Your task to perform on an android device: open app "NewsBreak: Local News & Alerts" Image 0: 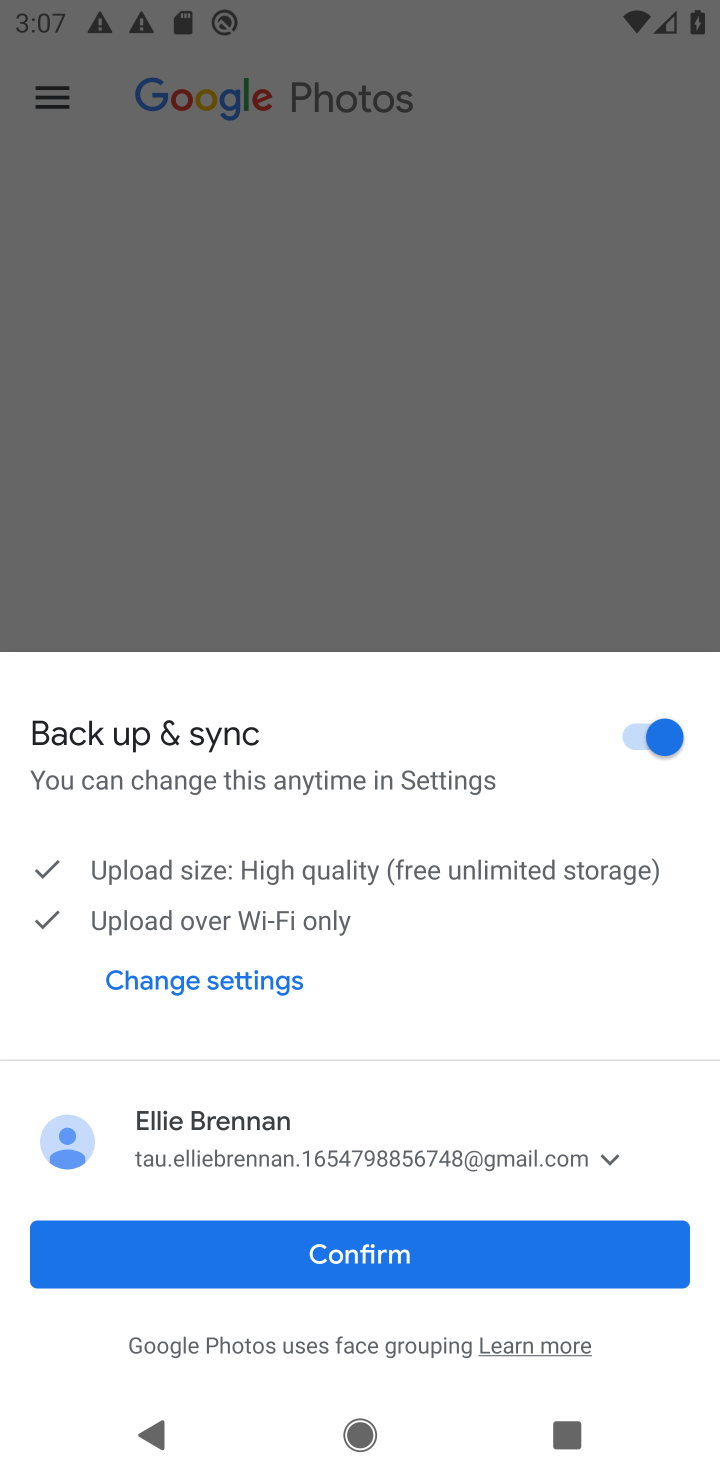
Step 0: press home button
Your task to perform on an android device: open app "NewsBreak: Local News & Alerts" Image 1: 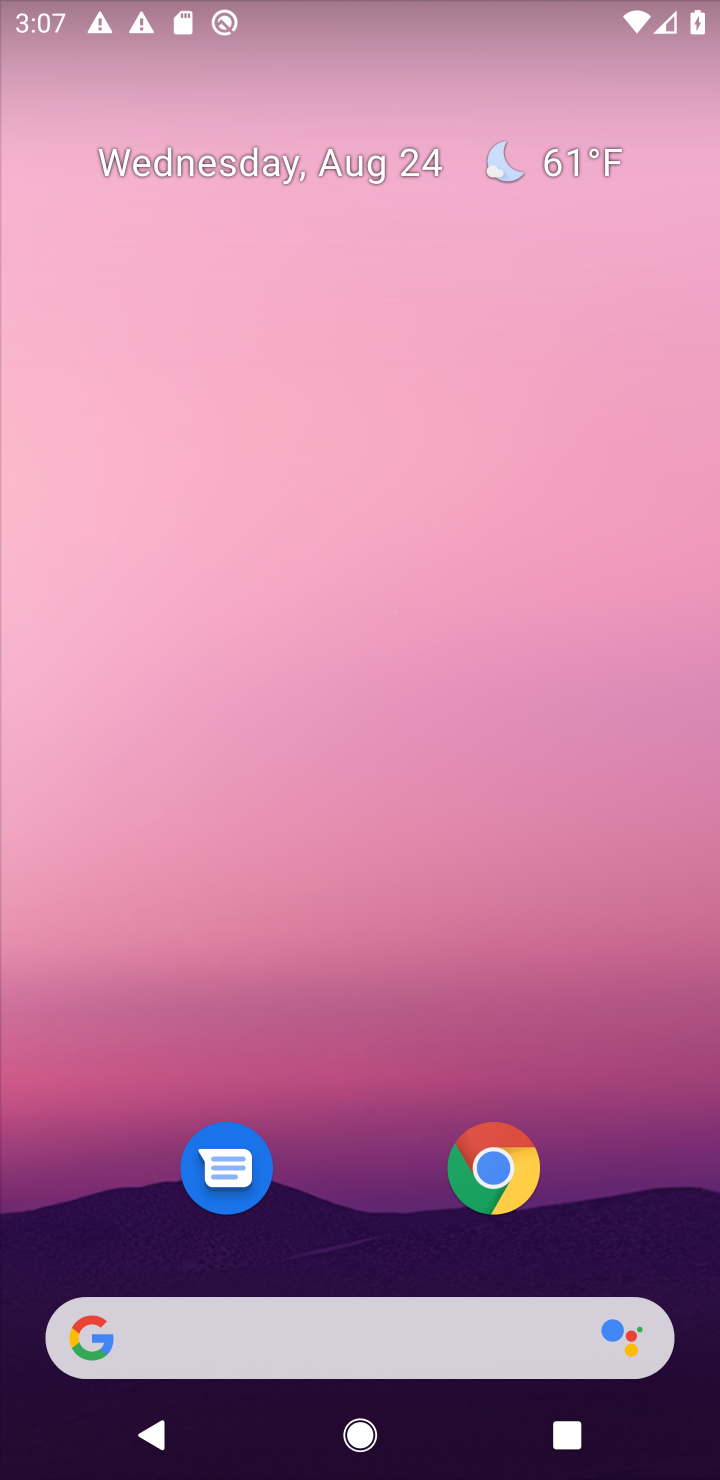
Step 1: drag from (591, 520) to (594, 104)
Your task to perform on an android device: open app "NewsBreak: Local News & Alerts" Image 2: 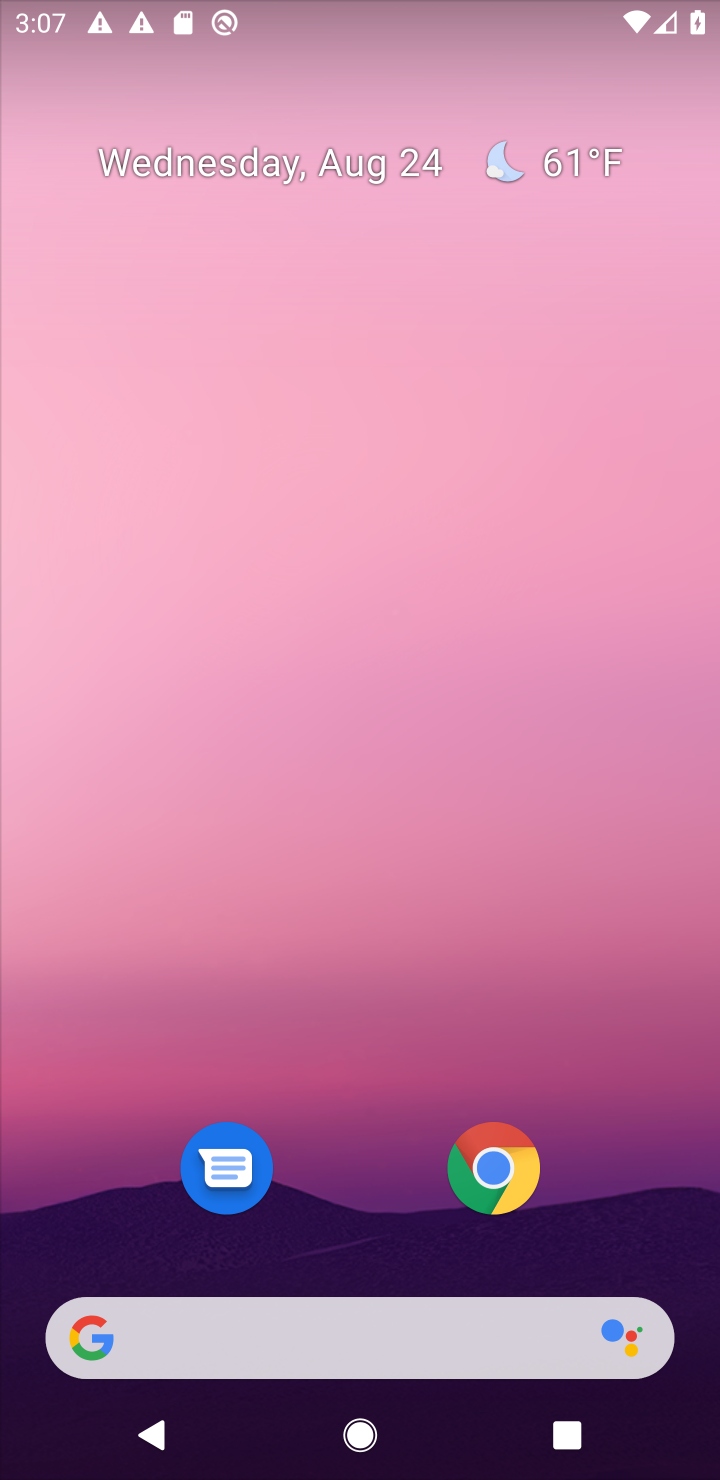
Step 2: drag from (622, 1229) to (587, 229)
Your task to perform on an android device: open app "NewsBreak: Local News & Alerts" Image 3: 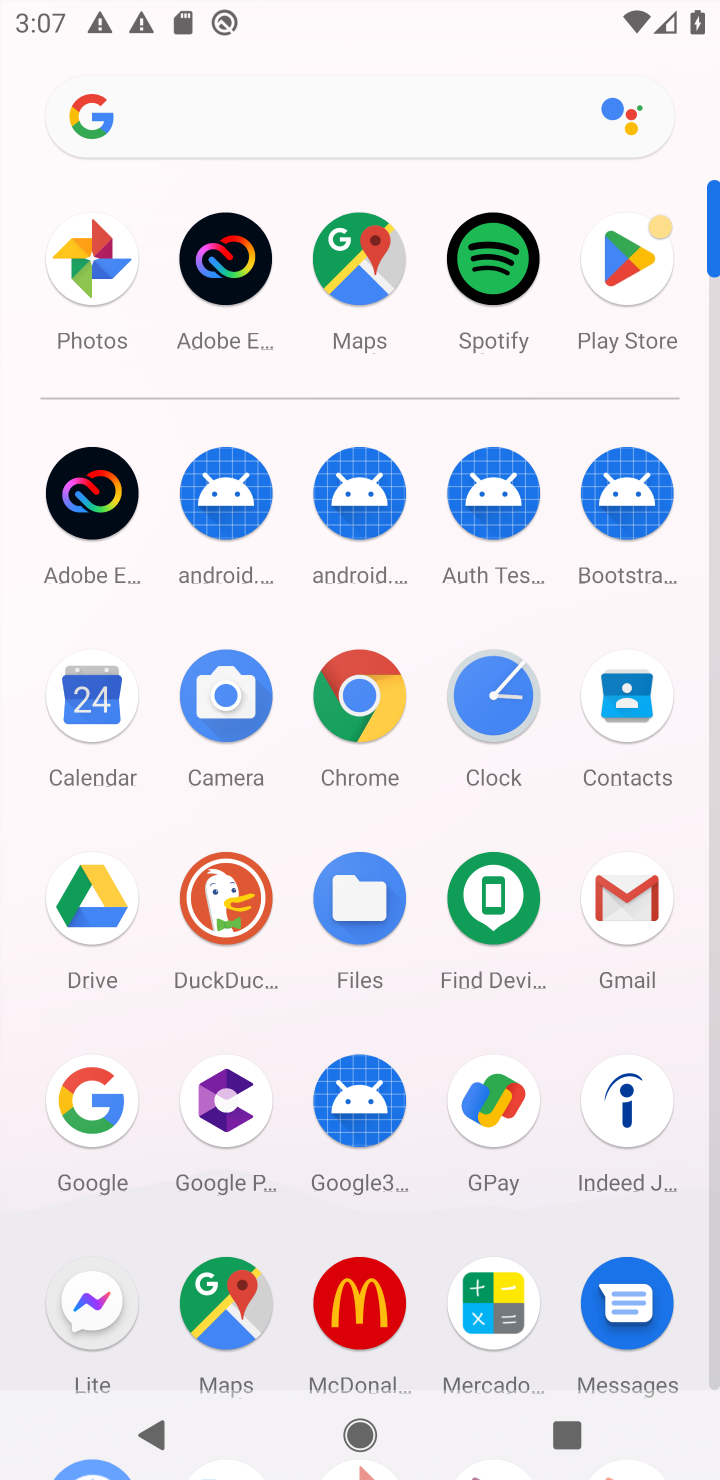
Step 3: click (716, 1308)
Your task to perform on an android device: open app "NewsBreak: Local News & Alerts" Image 4: 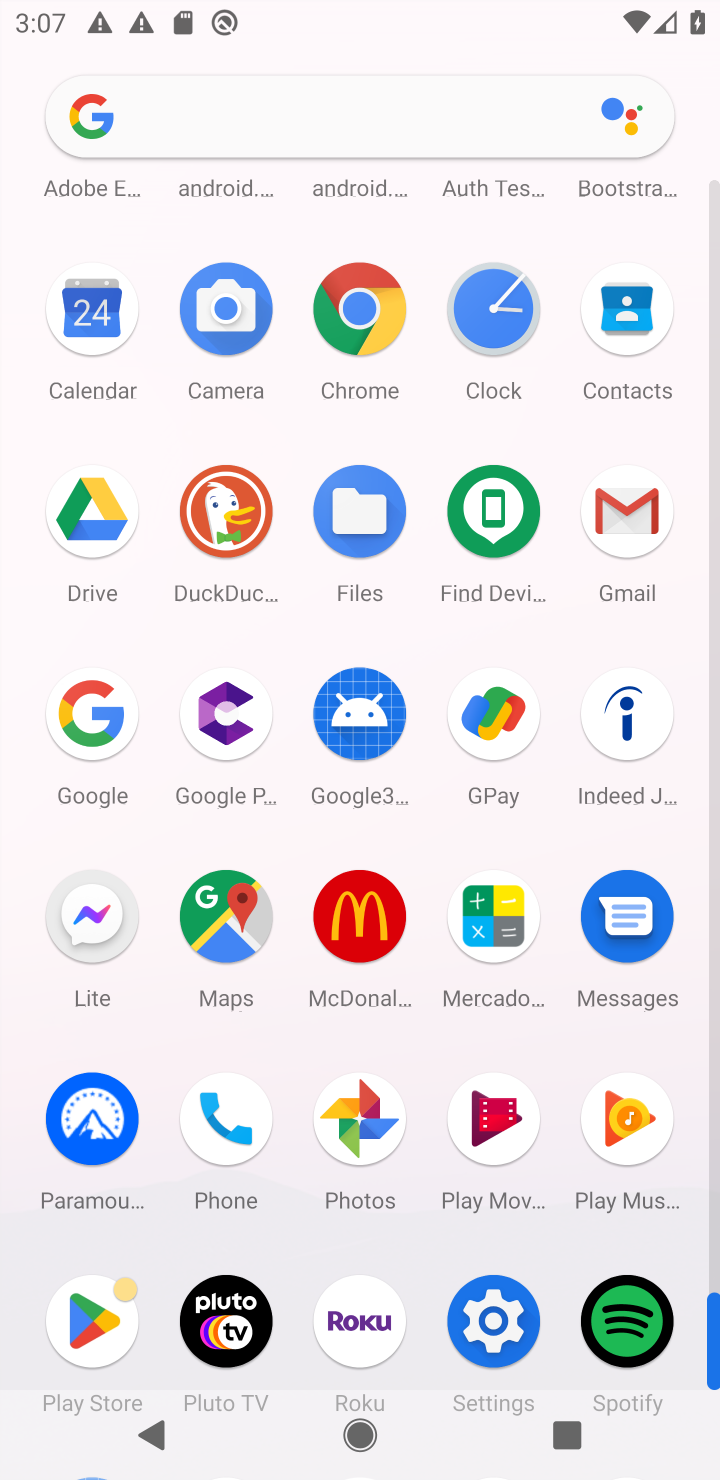
Step 4: click (87, 1319)
Your task to perform on an android device: open app "NewsBreak: Local News & Alerts" Image 5: 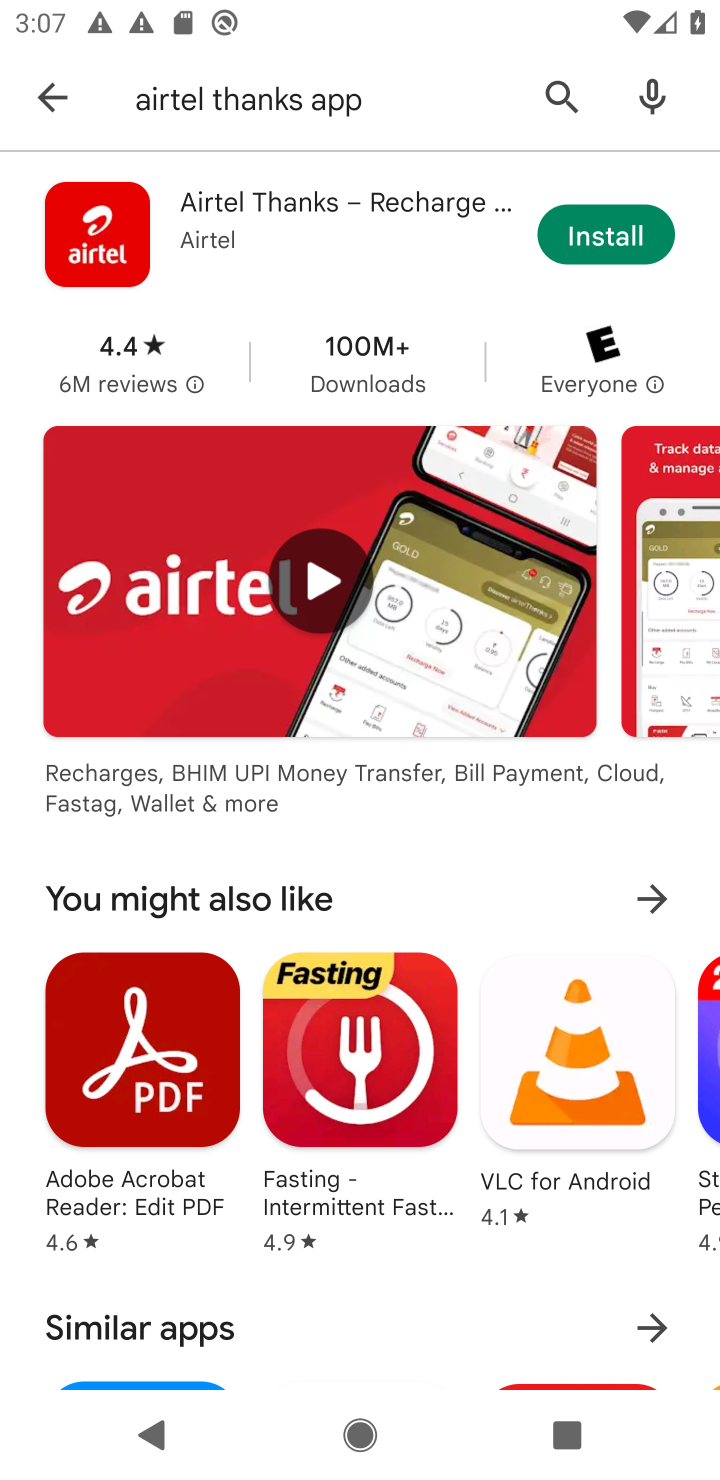
Step 5: click (558, 98)
Your task to perform on an android device: open app "NewsBreak: Local News & Alerts" Image 6: 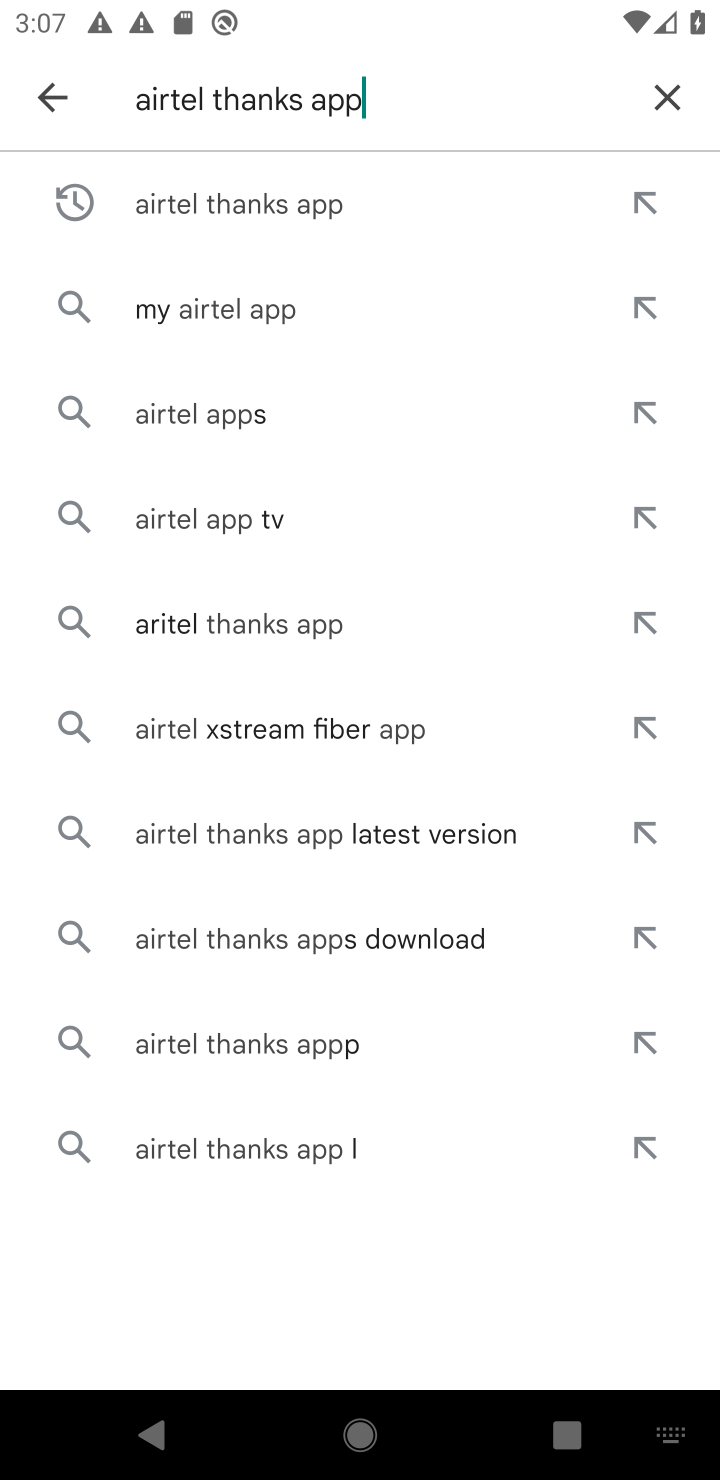
Step 6: click (666, 91)
Your task to perform on an android device: open app "NewsBreak: Local News & Alerts" Image 7: 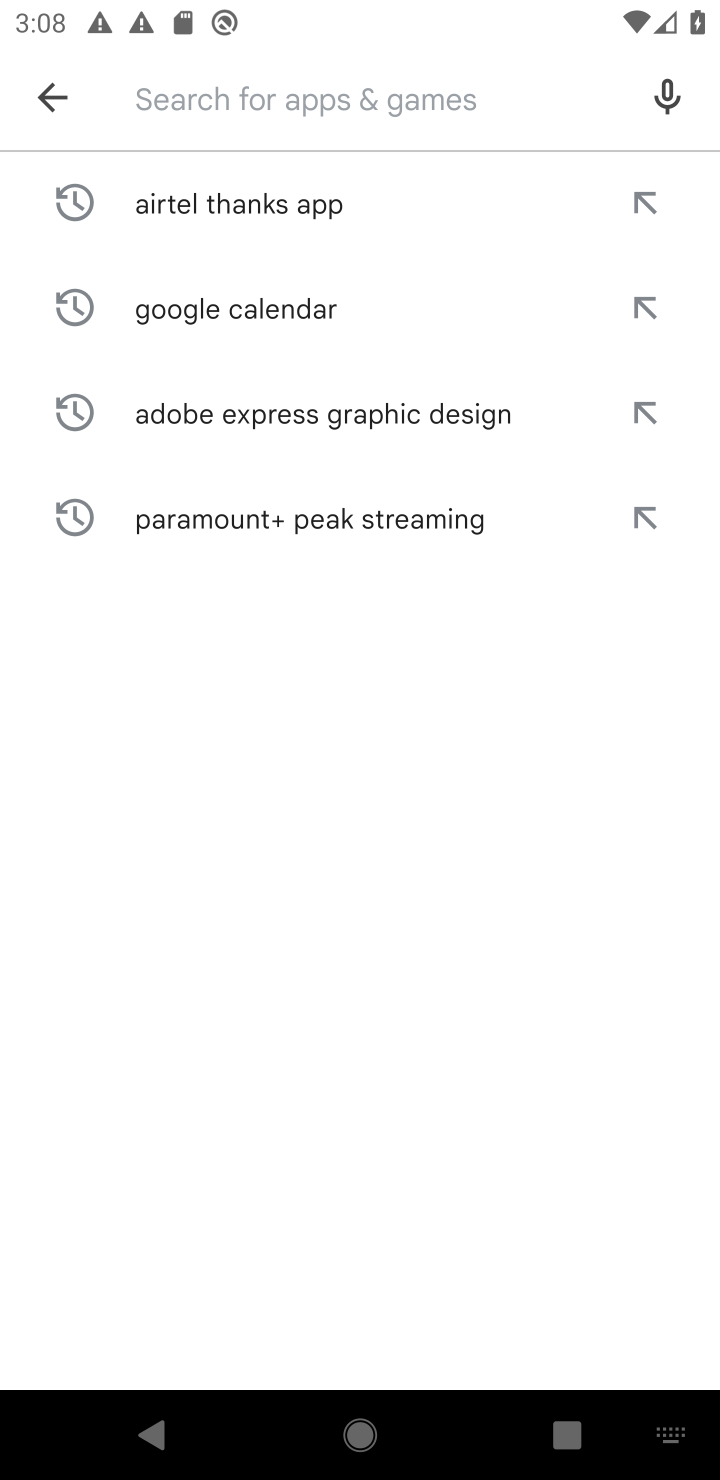
Step 7: type "NewsBreak: Local News & Alerts"
Your task to perform on an android device: open app "NewsBreak: Local News & Alerts" Image 8: 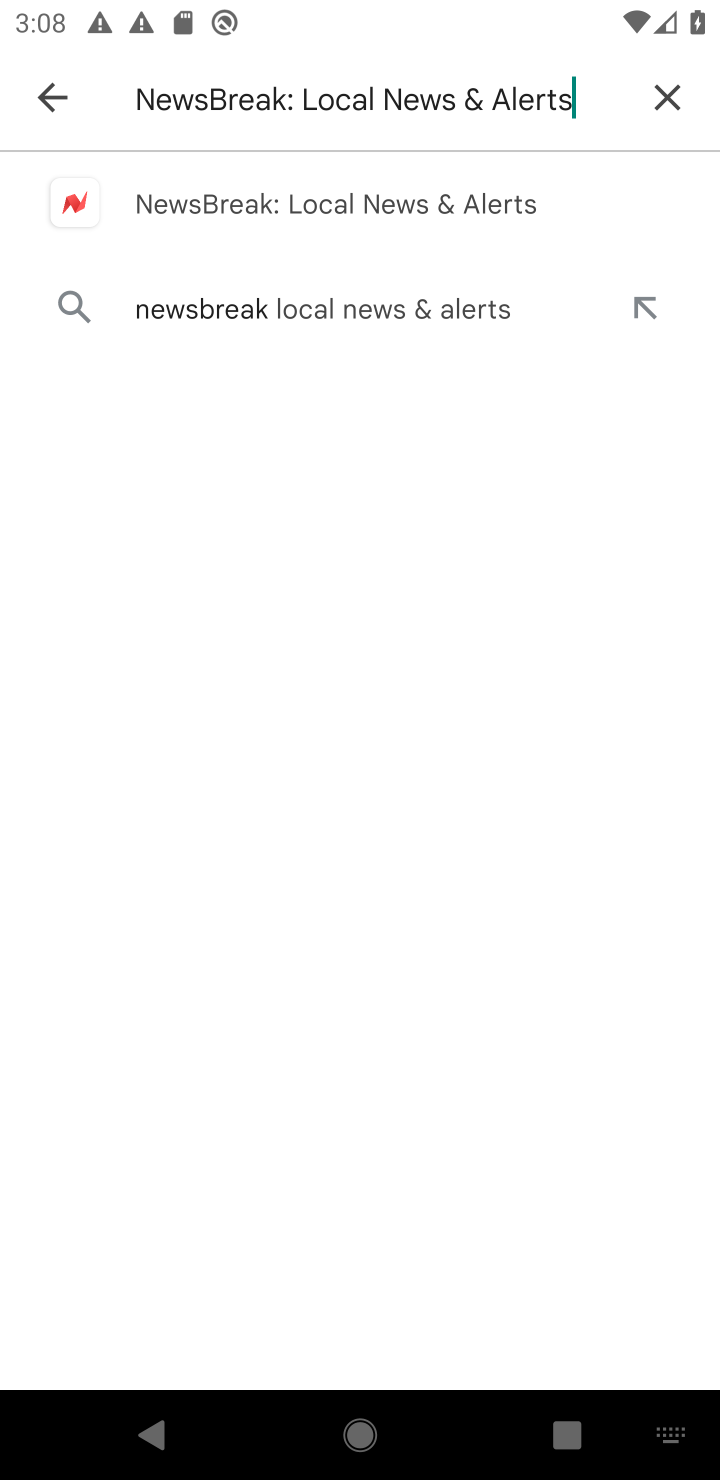
Step 8: click (263, 205)
Your task to perform on an android device: open app "NewsBreak: Local News & Alerts" Image 9: 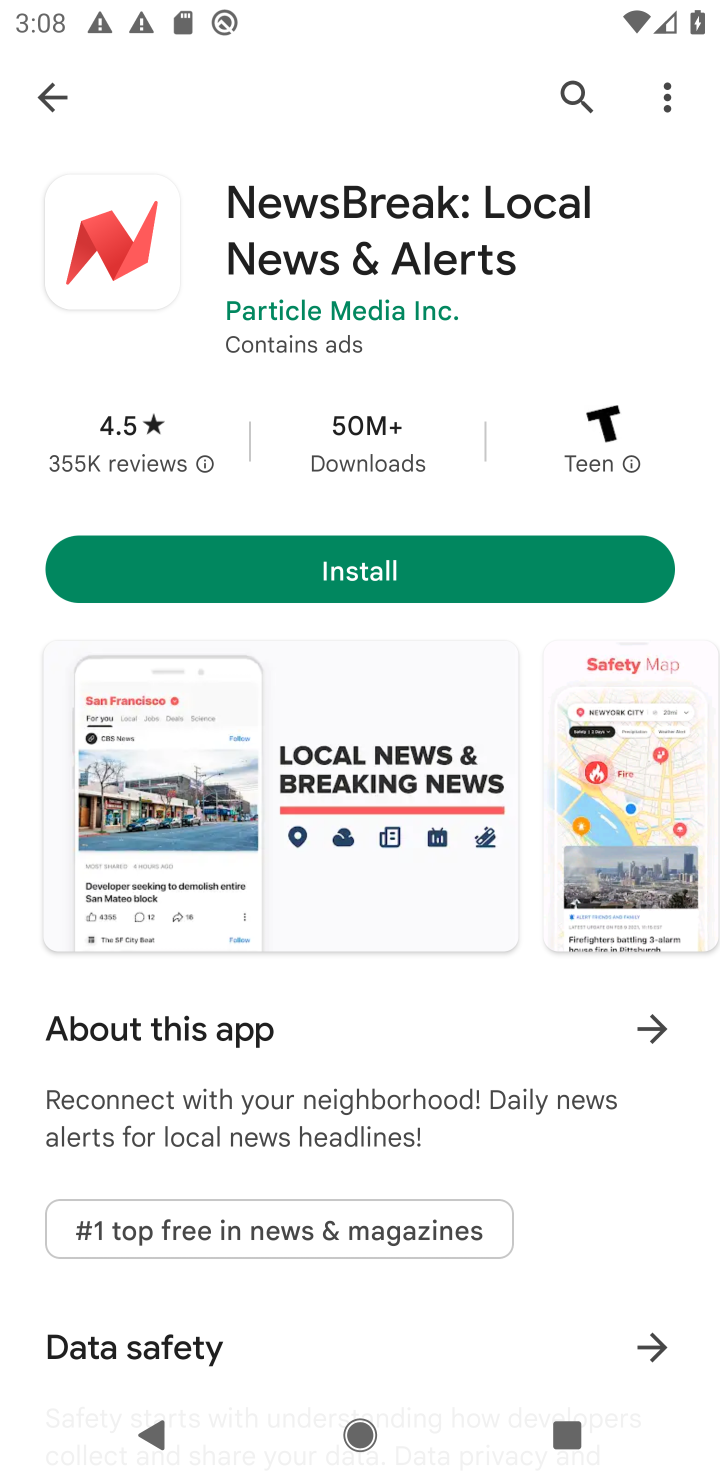
Step 9: task complete